Your task to perform on an android device: change the clock style Image 0: 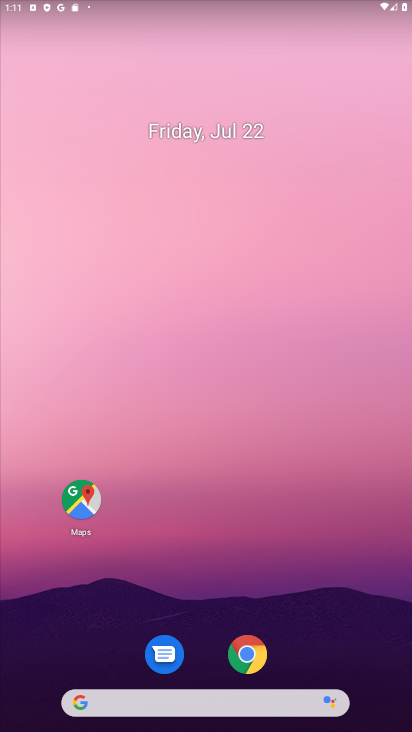
Step 0: drag from (194, 712) to (319, 86)
Your task to perform on an android device: change the clock style Image 1: 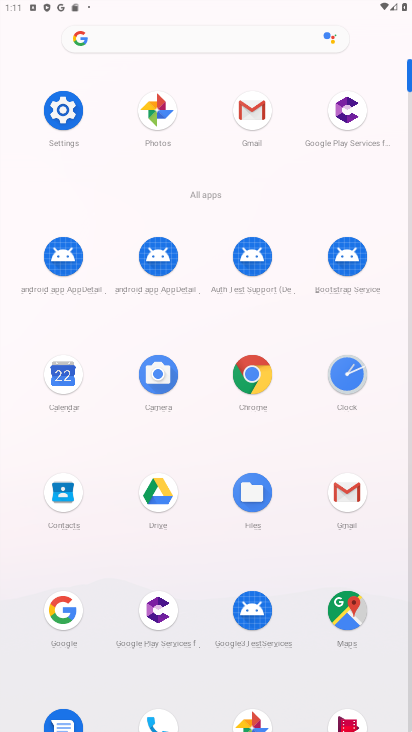
Step 1: click (341, 364)
Your task to perform on an android device: change the clock style Image 2: 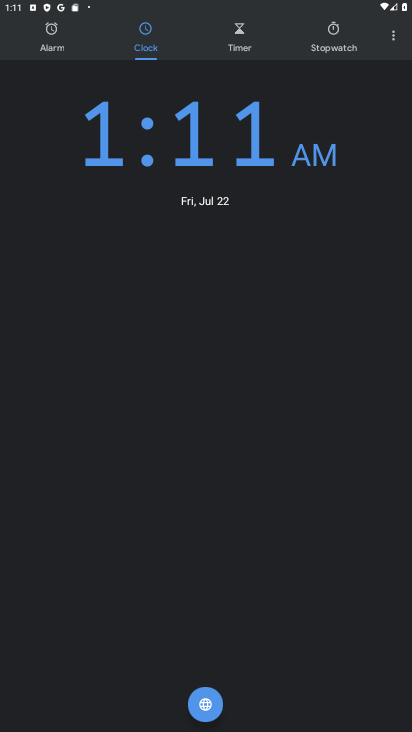
Step 2: click (393, 53)
Your task to perform on an android device: change the clock style Image 3: 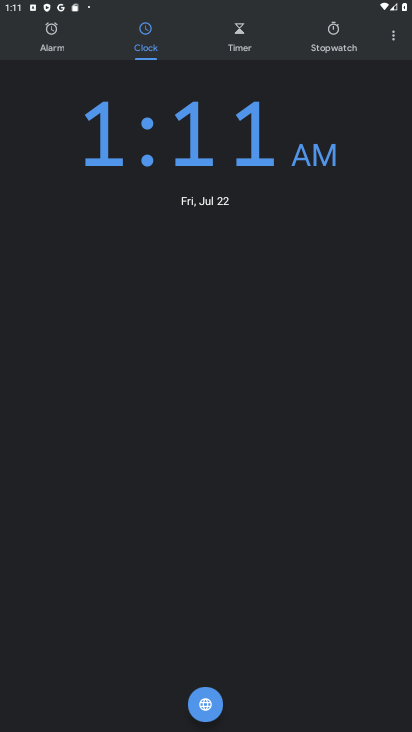
Step 3: click (387, 32)
Your task to perform on an android device: change the clock style Image 4: 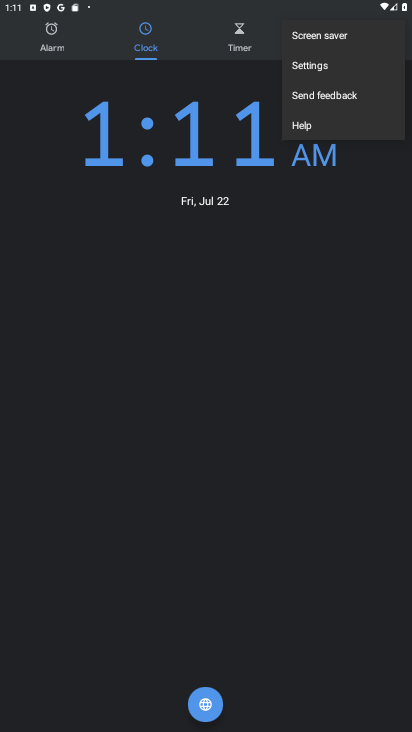
Step 4: click (328, 64)
Your task to perform on an android device: change the clock style Image 5: 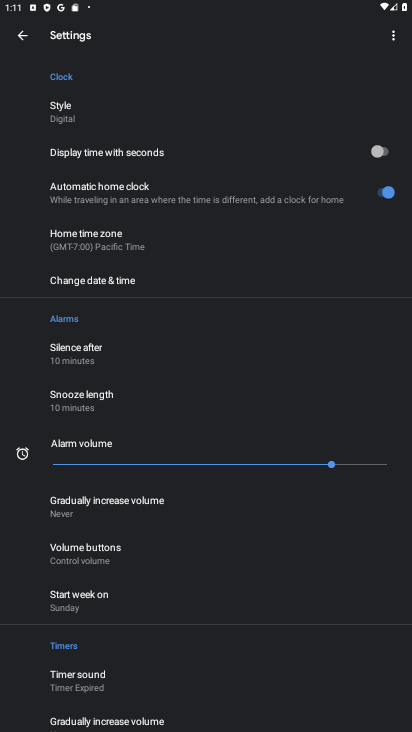
Step 5: click (145, 121)
Your task to perform on an android device: change the clock style Image 6: 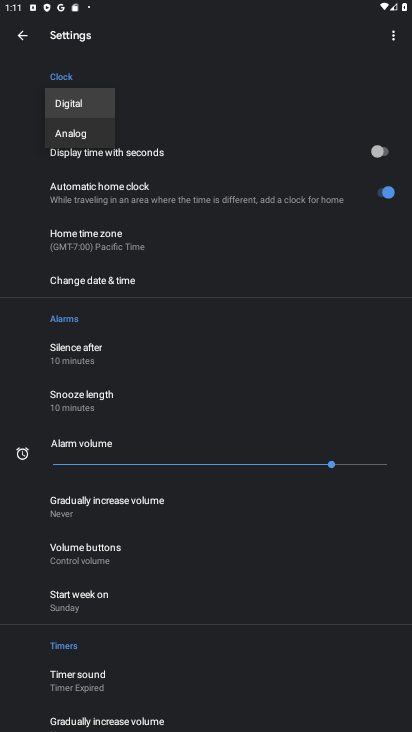
Step 6: click (78, 126)
Your task to perform on an android device: change the clock style Image 7: 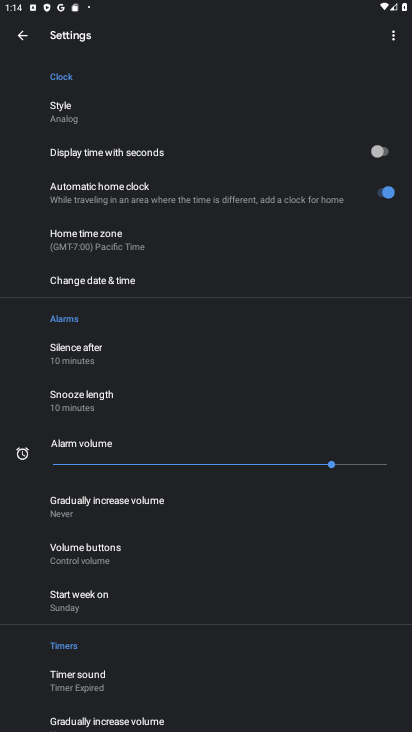
Step 7: task complete